Your task to perform on an android device: remove spam from my inbox in the gmail app Image 0: 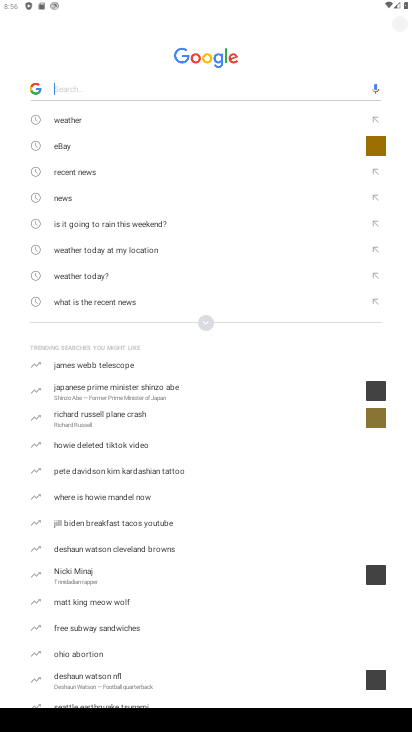
Step 0: press back button
Your task to perform on an android device: remove spam from my inbox in the gmail app Image 1: 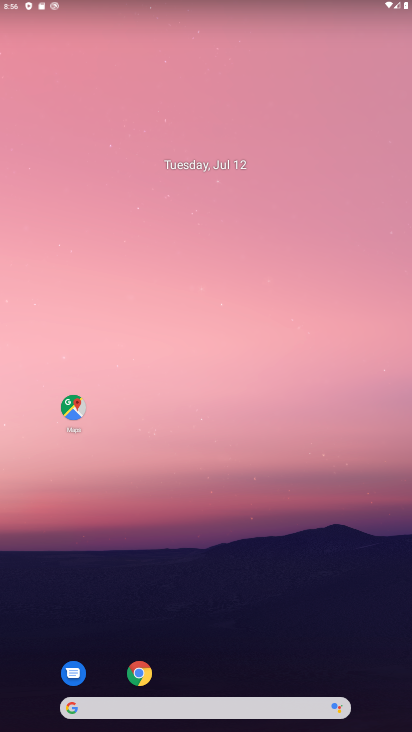
Step 1: drag from (240, 678) to (71, 94)
Your task to perform on an android device: remove spam from my inbox in the gmail app Image 2: 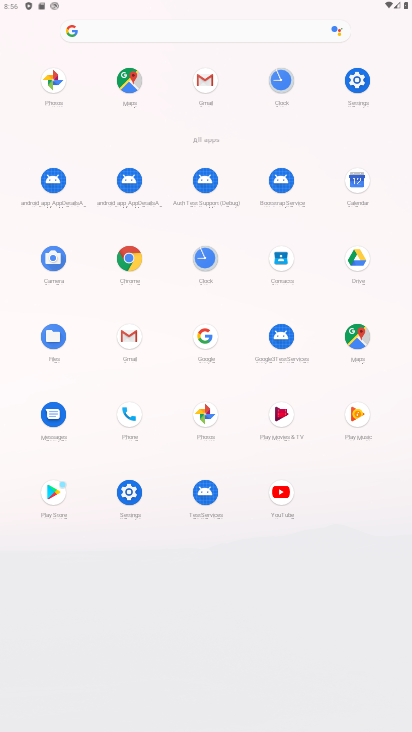
Step 2: click (130, 335)
Your task to perform on an android device: remove spam from my inbox in the gmail app Image 3: 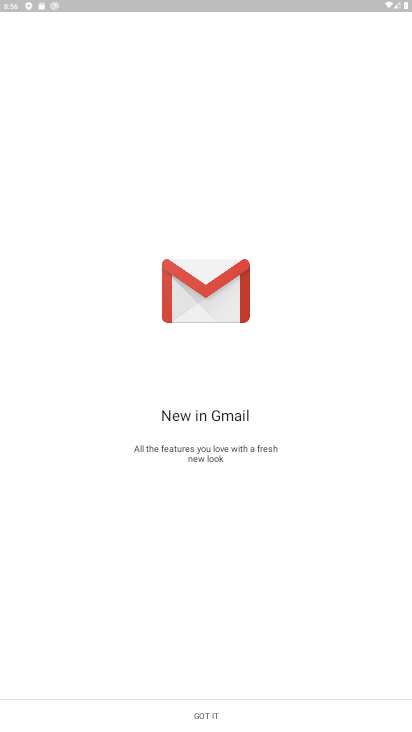
Step 3: click (221, 717)
Your task to perform on an android device: remove spam from my inbox in the gmail app Image 4: 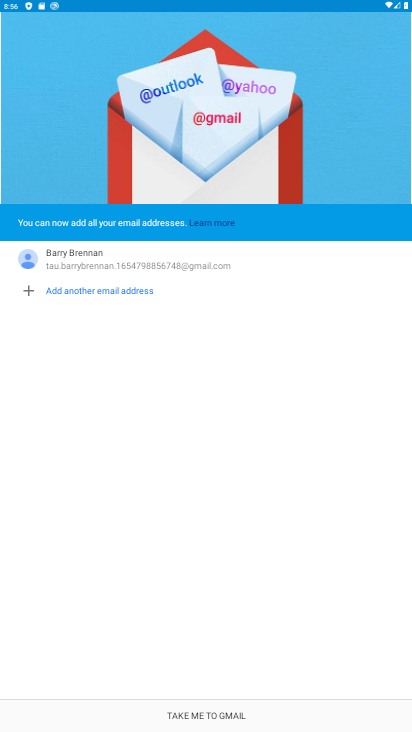
Step 4: click (221, 711)
Your task to perform on an android device: remove spam from my inbox in the gmail app Image 5: 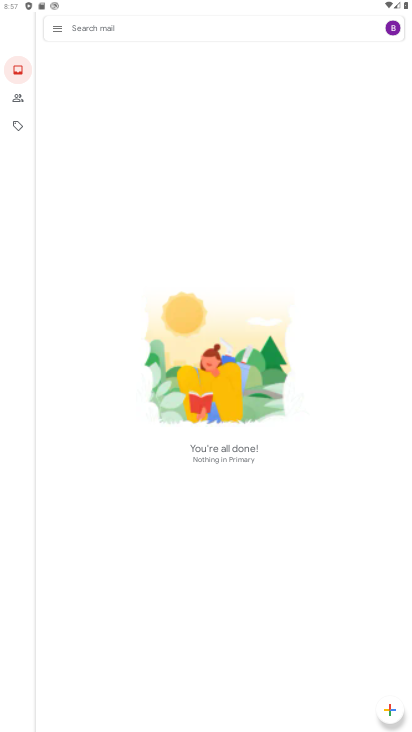
Step 5: click (52, 28)
Your task to perform on an android device: remove spam from my inbox in the gmail app Image 6: 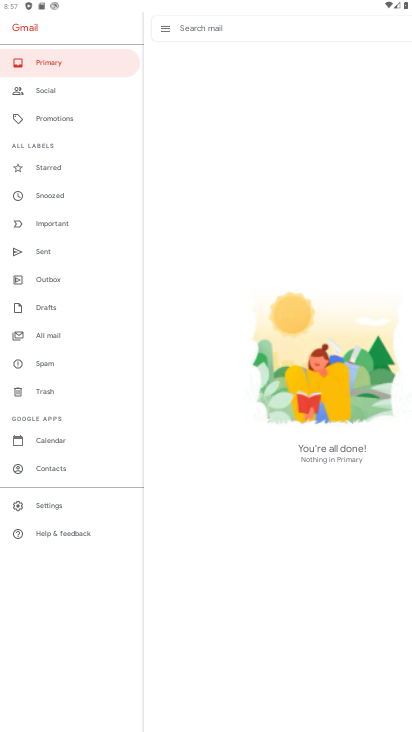
Step 6: click (41, 361)
Your task to perform on an android device: remove spam from my inbox in the gmail app Image 7: 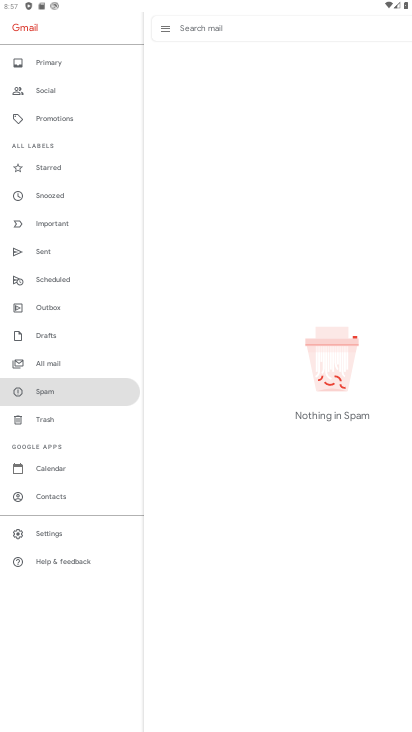
Step 7: task complete